Your task to perform on an android device: Open calendar and show me the third week of next month Image 0: 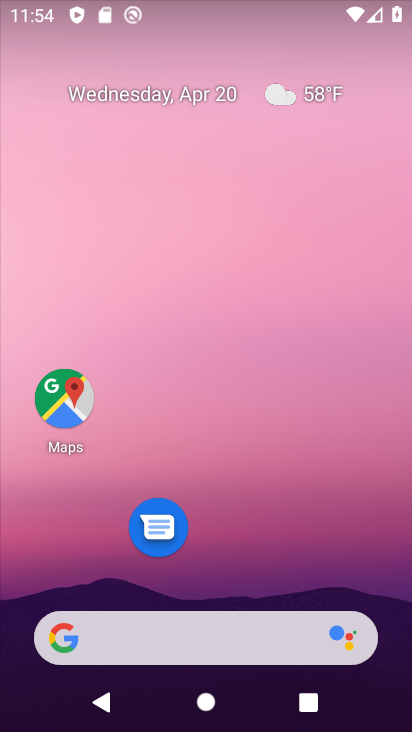
Step 0: drag from (216, 721) to (216, 134)
Your task to perform on an android device: Open calendar and show me the third week of next month Image 1: 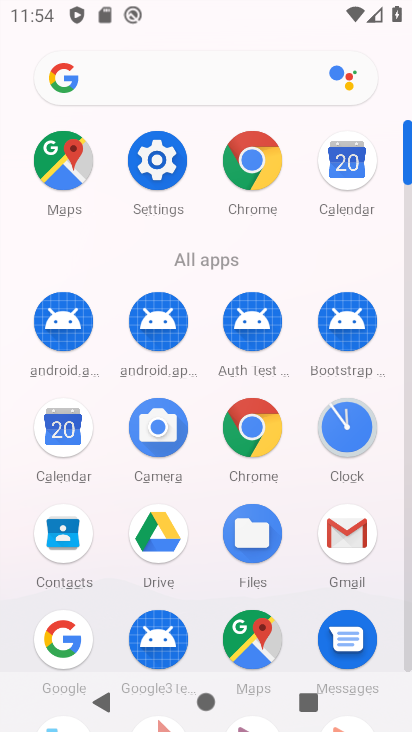
Step 1: click (61, 430)
Your task to perform on an android device: Open calendar and show me the third week of next month Image 2: 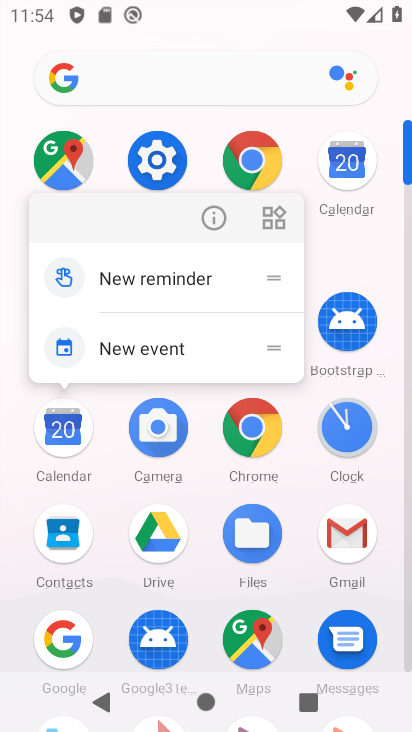
Step 2: click (61, 425)
Your task to perform on an android device: Open calendar and show me the third week of next month Image 3: 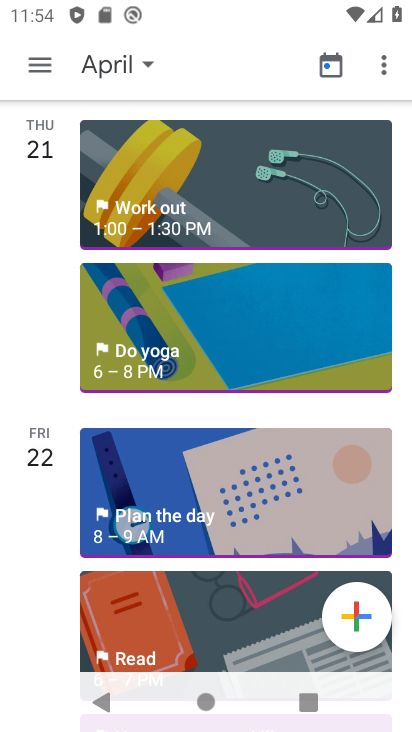
Step 3: click (112, 58)
Your task to perform on an android device: Open calendar and show me the third week of next month Image 4: 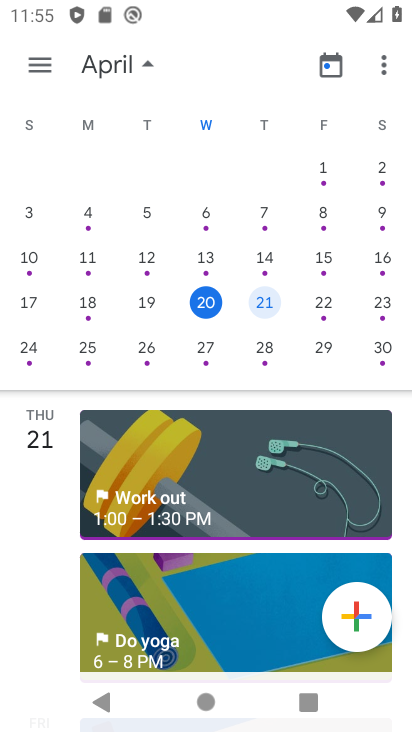
Step 4: drag from (360, 271) to (62, 257)
Your task to perform on an android device: Open calendar and show me the third week of next month Image 5: 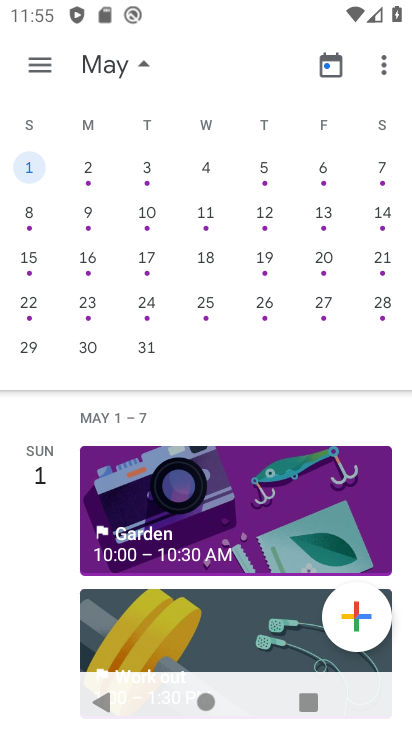
Step 5: click (86, 253)
Your task to perform on an android device: Open calendar and show me the third week of next month Image 6: 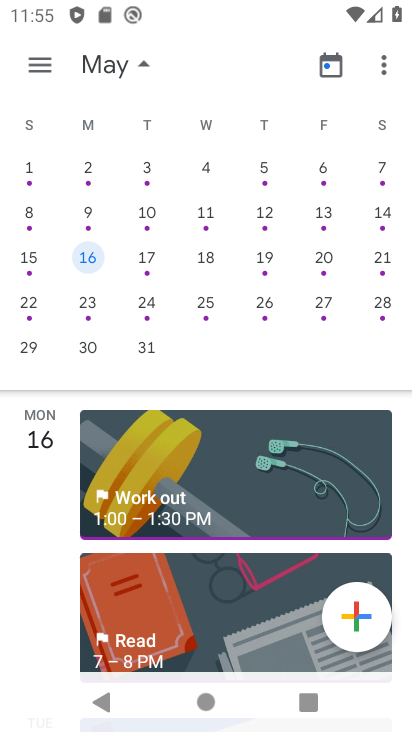
Step 6: task complete